Your task to perform on an android device: turn off wifi Image 0: 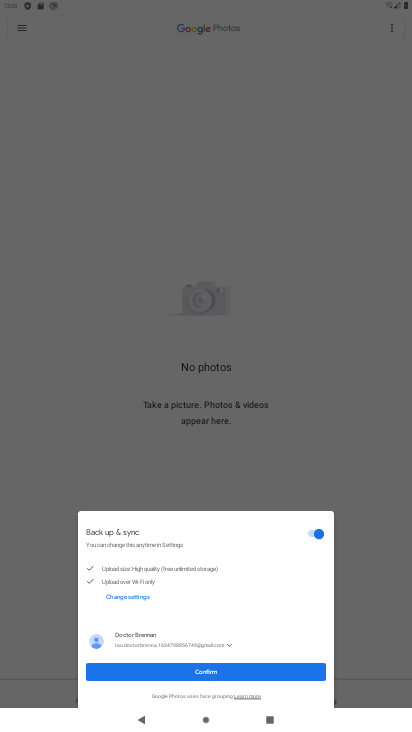
Step 0: press home button
Your task to perform on an android device: turn off wifi Image 1: 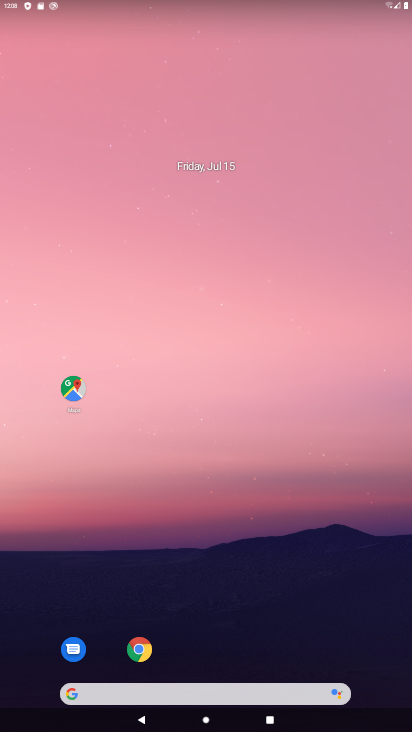
Step 1: drag from (214, 602) to (221, 8)
Your task to perform on an android device: turn off wifi Image 2: 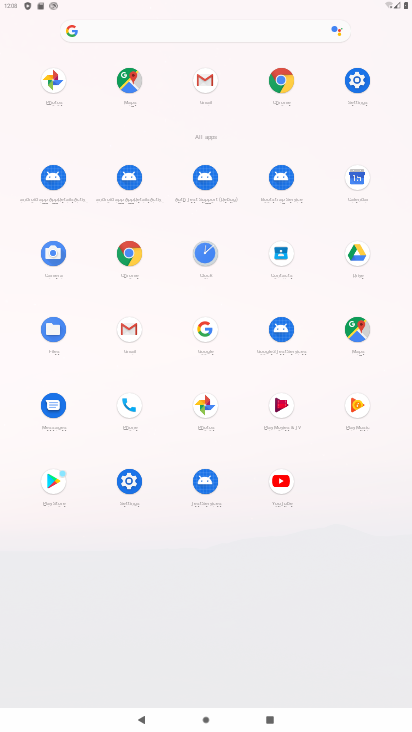
Step 2: click (136, 488)
Your task to perform on an android device: turn off wifi Image 3: 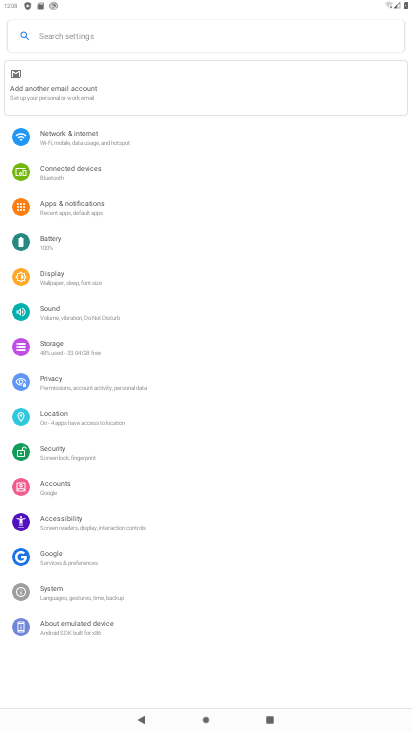
Step 3: click (65, 134)
Your task to perform on an android device: turn off wifi Image 4: 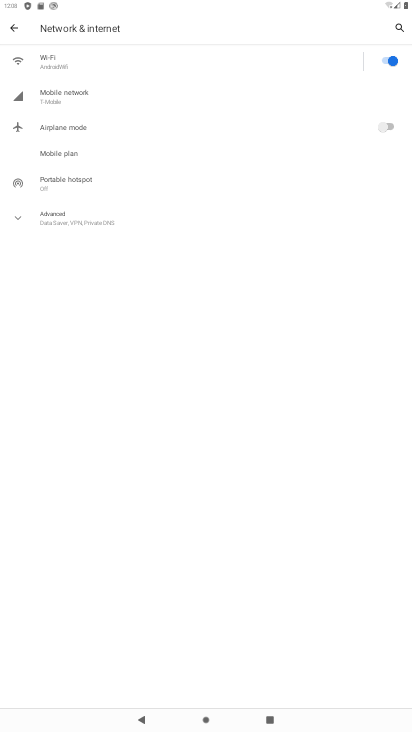
Step 4: click (384, 61)
Your task to perform on an android device: turn off wifi Image 5: 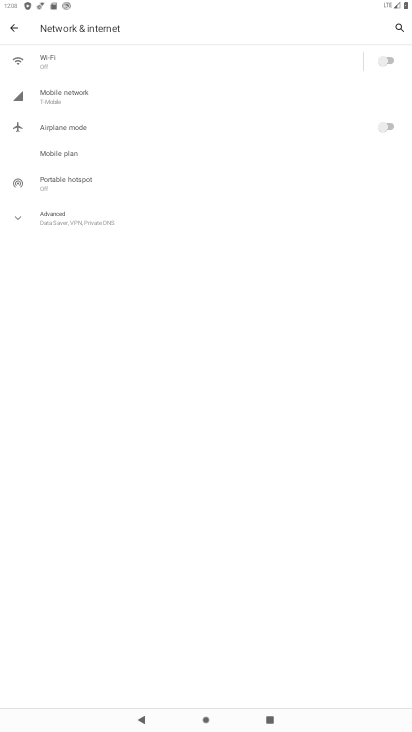
Step 5: task complete